Your task to perform on an android device: refresh tabs in the chrome app Image 0: 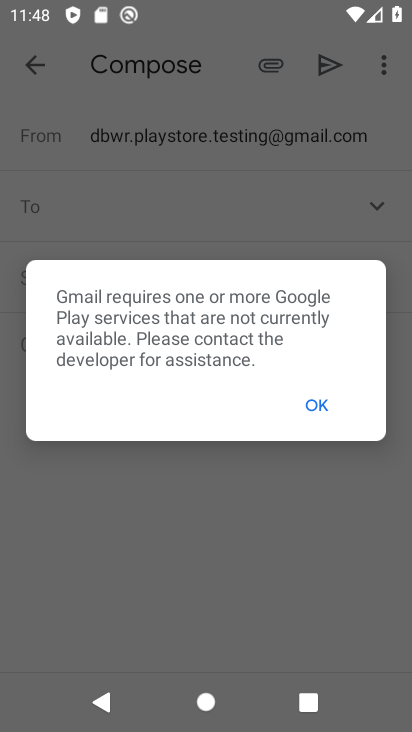
Step 0: task complete